Your task to perform on an android device: Add "dell xps" to the cart on bestbuy.com Image 0: 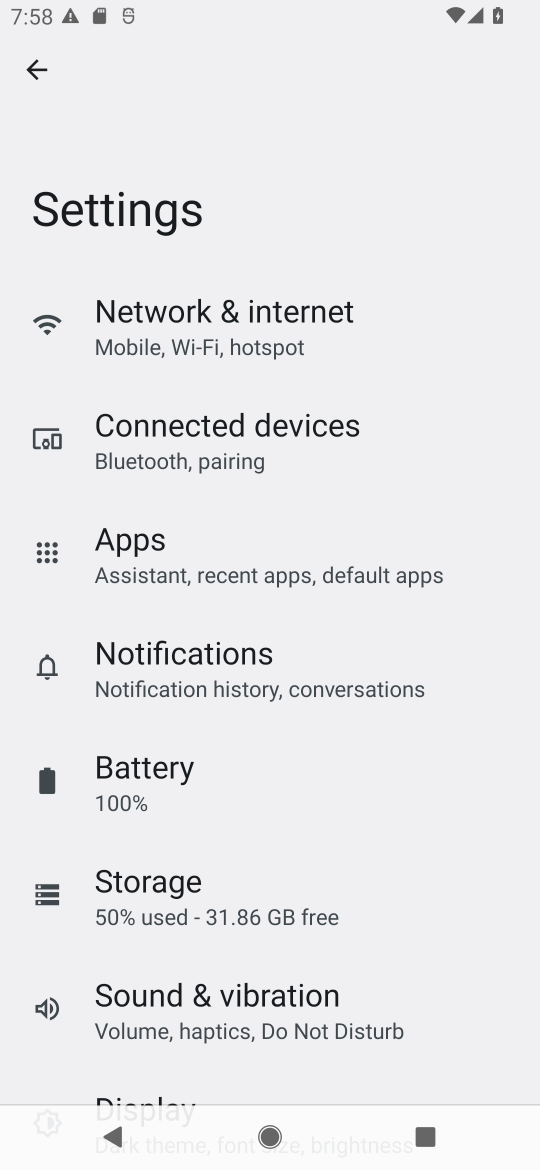
Step 0: press home button
Your task to perform on an android device: Add "dell xps" to the cart on bestbuy.com Image 1: 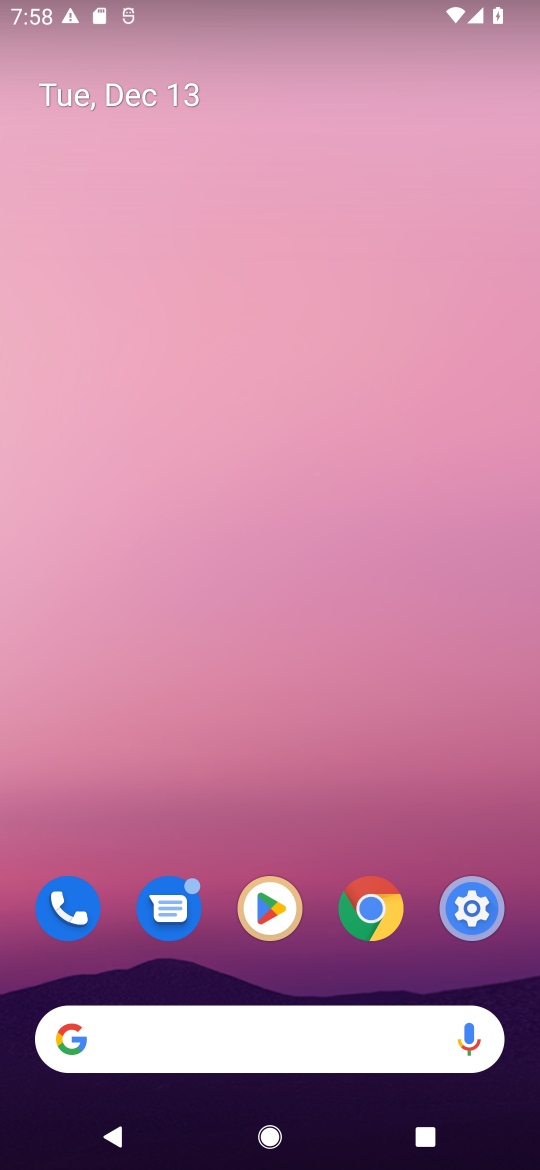
Step 1: click (121, 1038)
Your task to perform on an android device: Add "dell xps" to the cart on bestbuy.com Image 2: 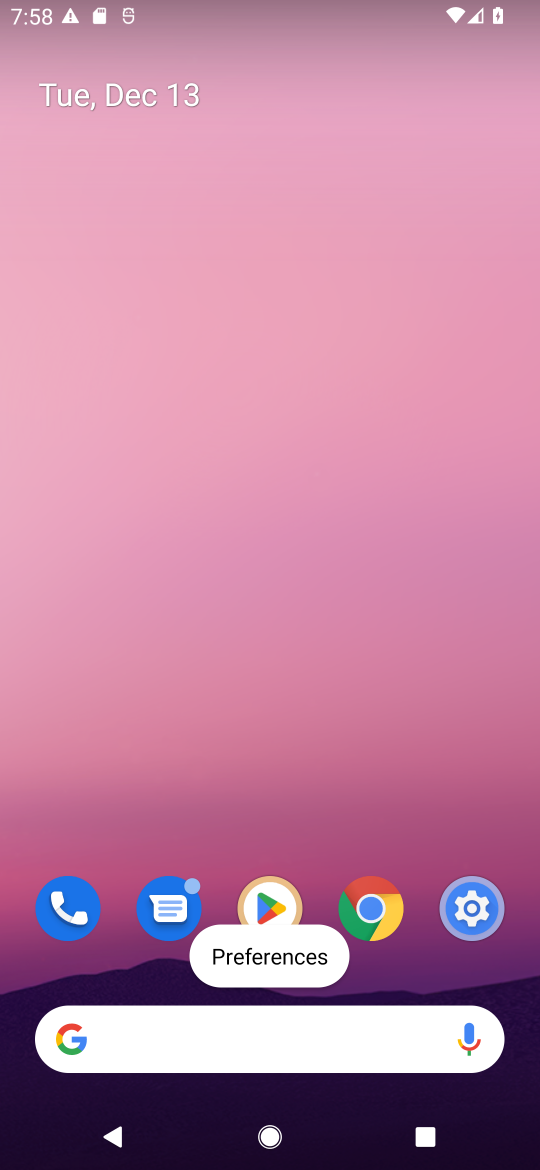
Step 2: click (93, 1045)
Your task to perform on an android device: Add "dell xps" to the cart on bestbuy.com Image 3: 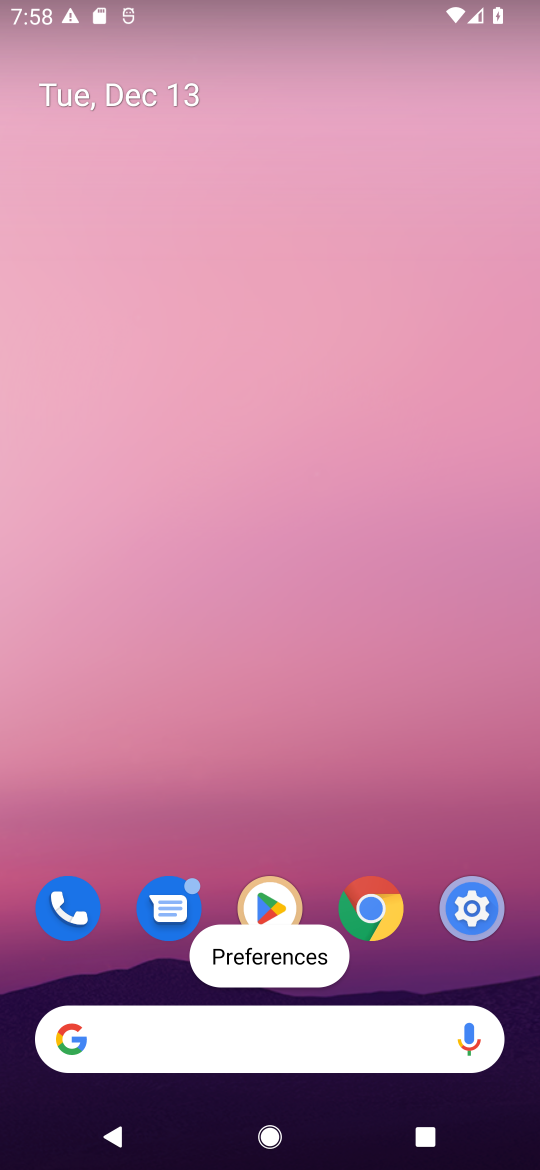
Step 3: click (116, 1037)
Your task to perform on an android device: Add "dell xps" to the cart on bestbuy.com Image 4: 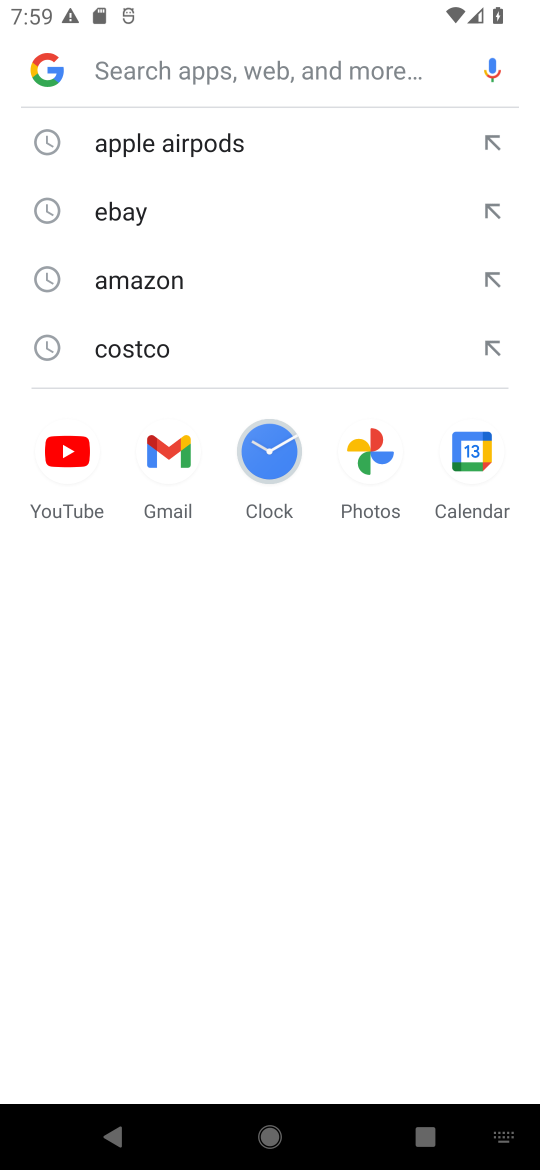
Step 4: type "bestbuy.com"
Your task to perform on an android device: Add "dell xps" to the cart on bestbuy.com Image 5: 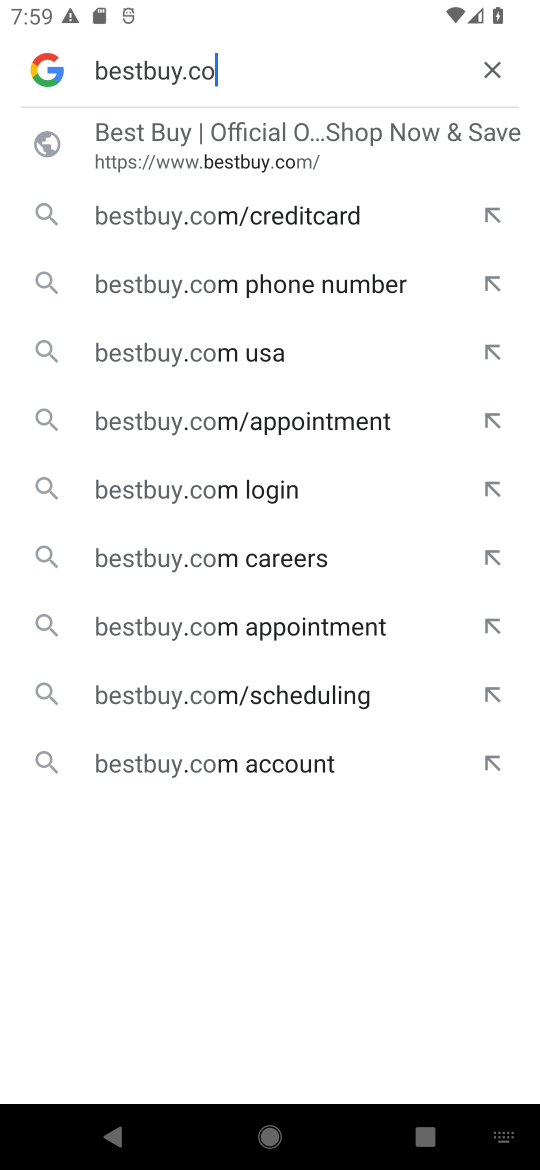
Step 5: press enter
Your task to perform on an android device: Add "dell xps" to the cart on bestbuy.com Image 6: 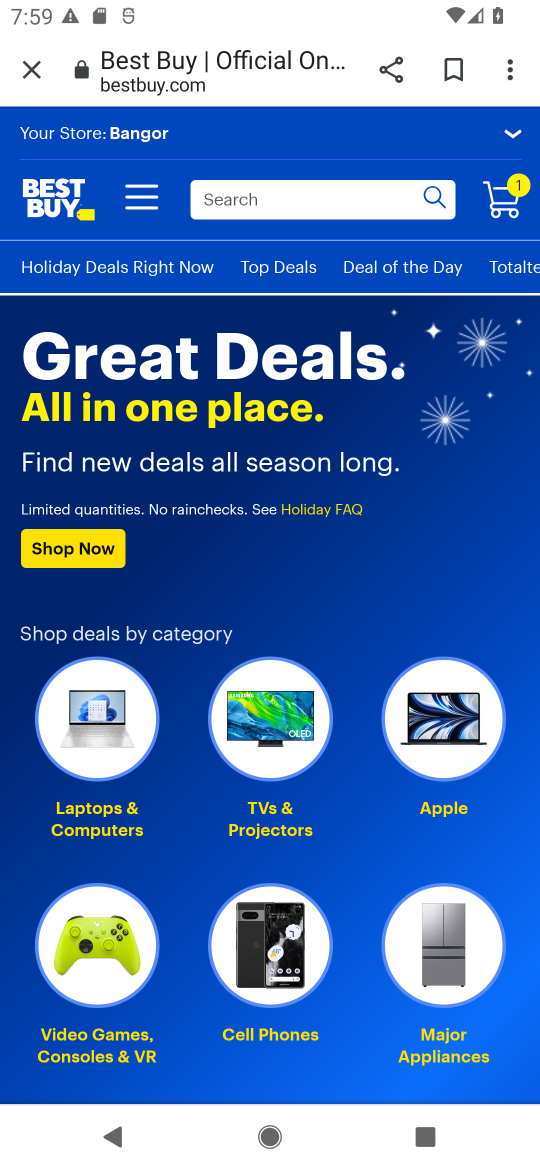
Step 6: click (239, 196)
Your task to perform on an android device: Add "dell xps" to the cart on bestbuy.com Image 7: 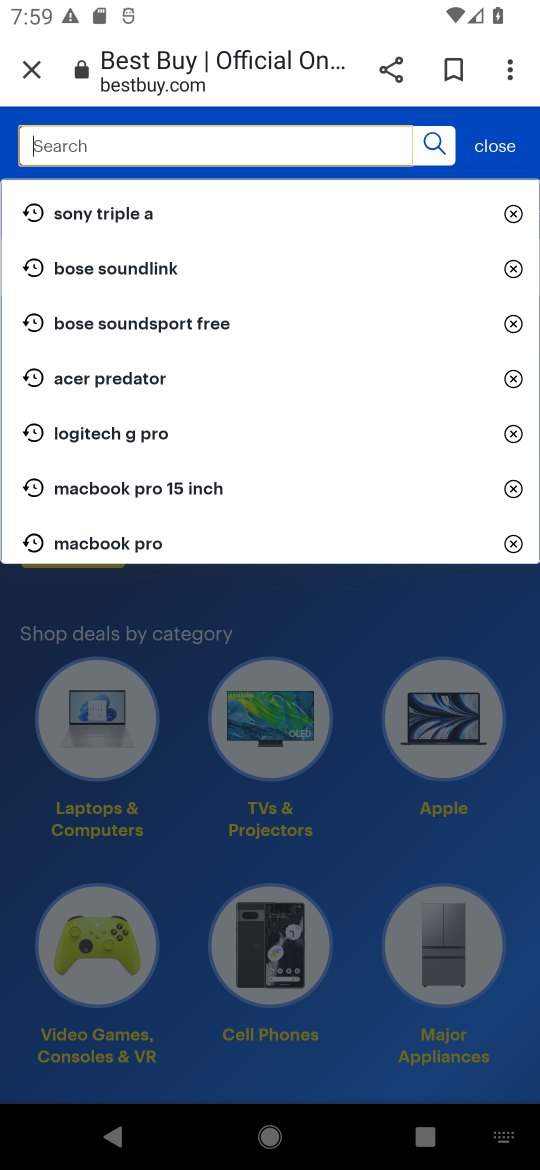
Step 7: type "dell xps"
Your task to perform on an android device: Add "dell xps" to the cart on bestbuy.com Image 8: 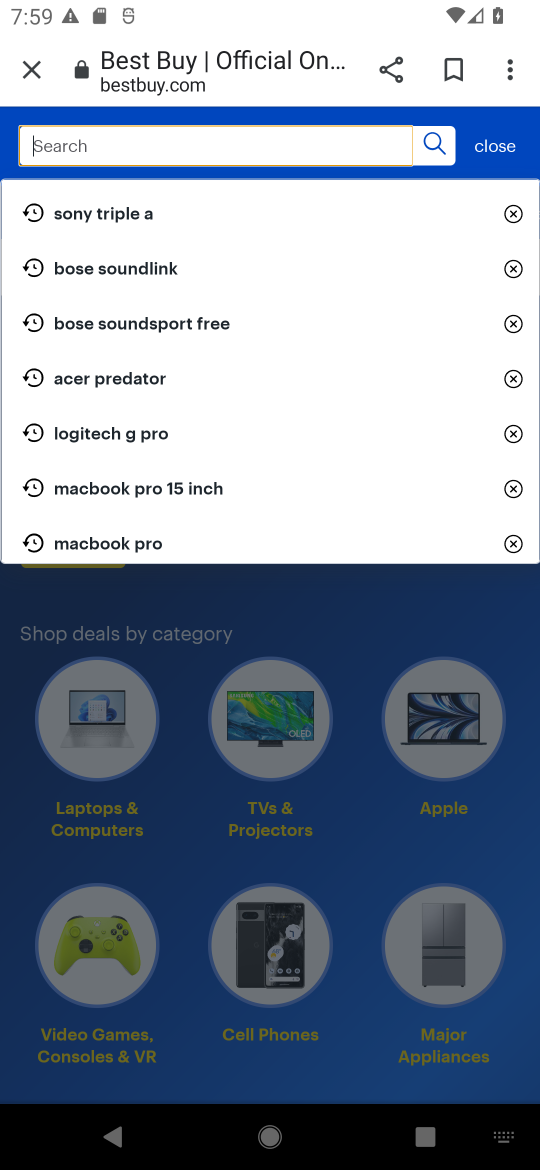
Step 8: press enter
Your task to perform on an android device: Add "dell xps" to the cart on bestbuy.com Image 9: 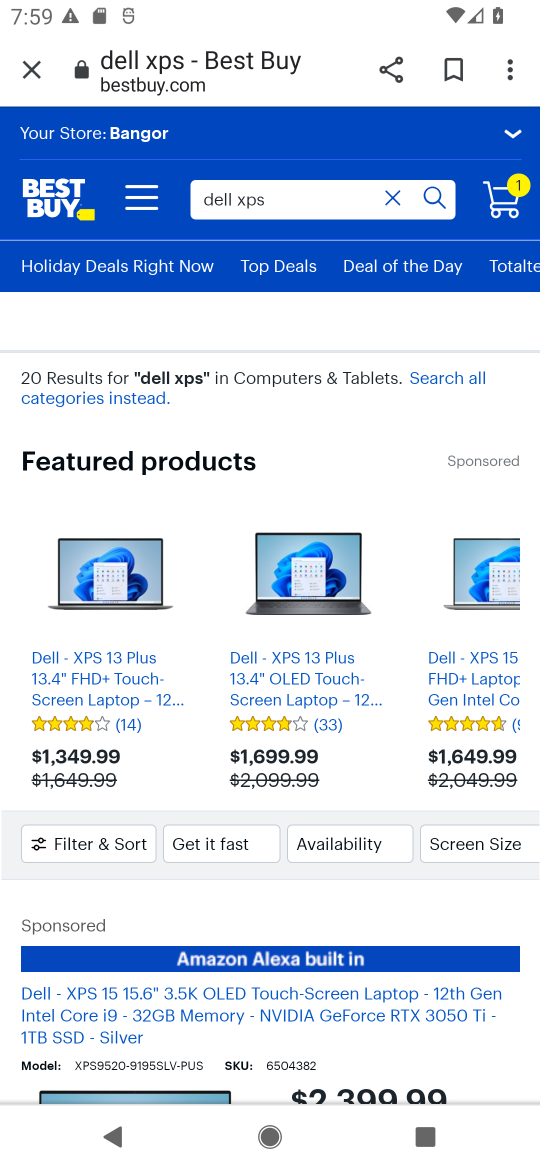
Step 9: drag from (298, 999) to (348, 450)
Your task to perform on an android device: Add "dell xps" to the cart on bestbuy.com Image 10: 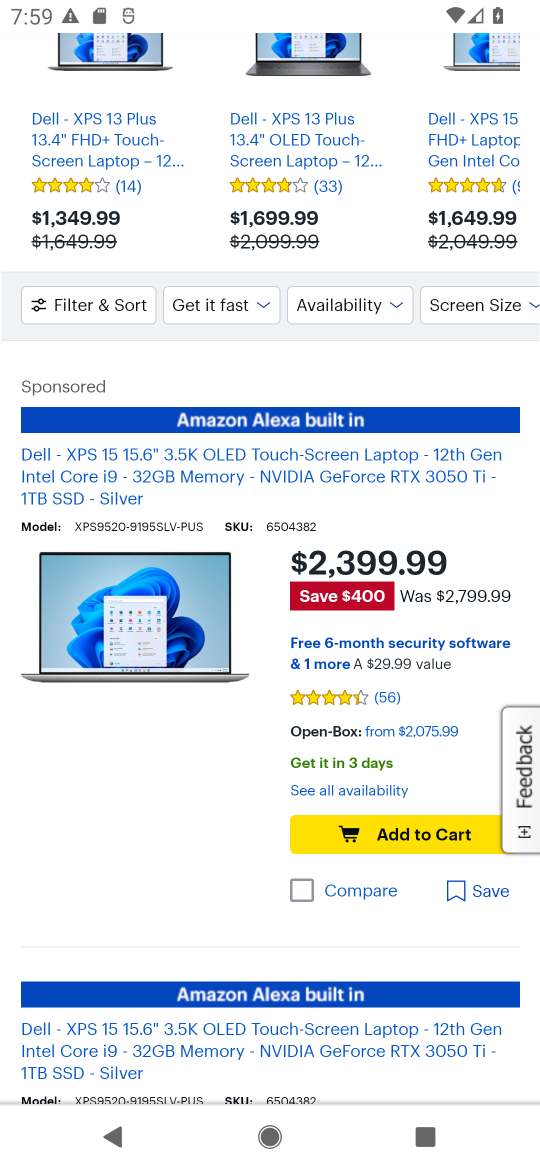
Step 10: click (419, 837)
Your task to perform on an android device: Add "dell xps" to the cart on bestbuy.com Image 11: 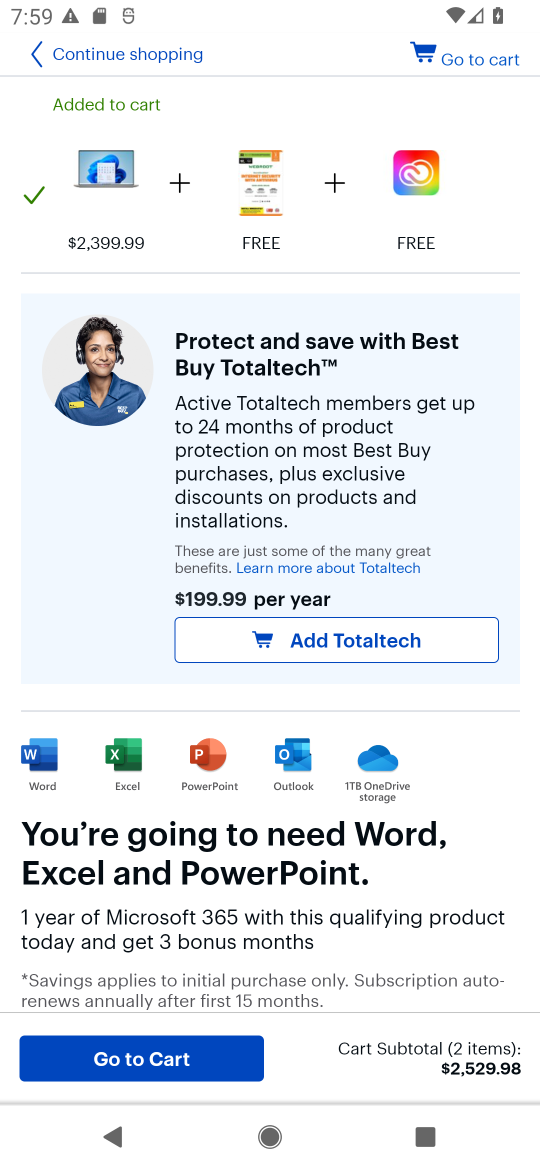
Step 11: task complete